Your task to perform on an android device: empty trash in the gmail app Image 0: 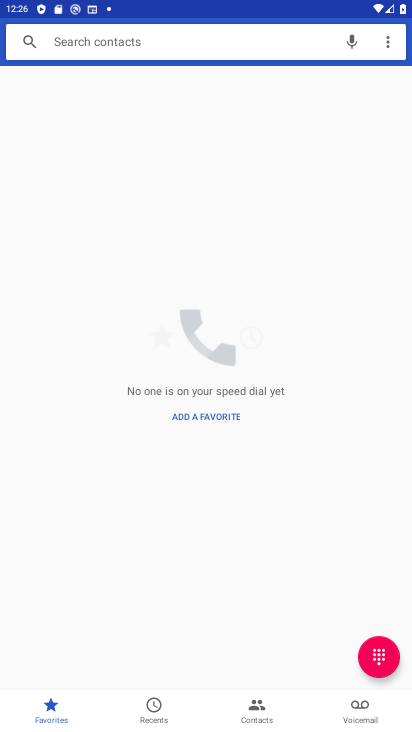
Step 0: press home button
Your task to perform on an android device: empty trash in the gmail app Image 1: 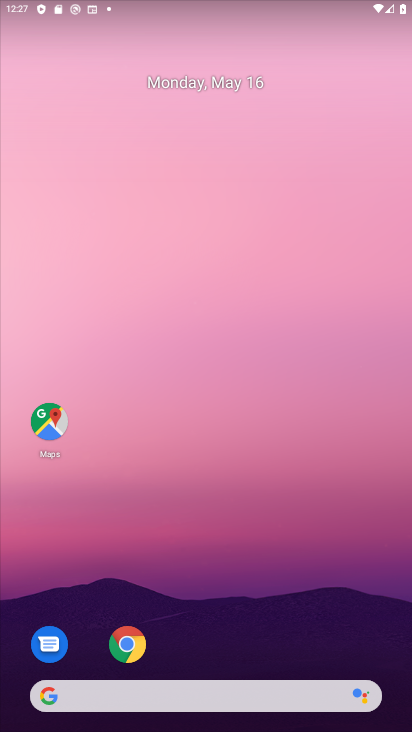
Step 1: drag from (232, 701) to (166, 132)
Your task to perform on an android device: empty trash in the gmail app Image 2: 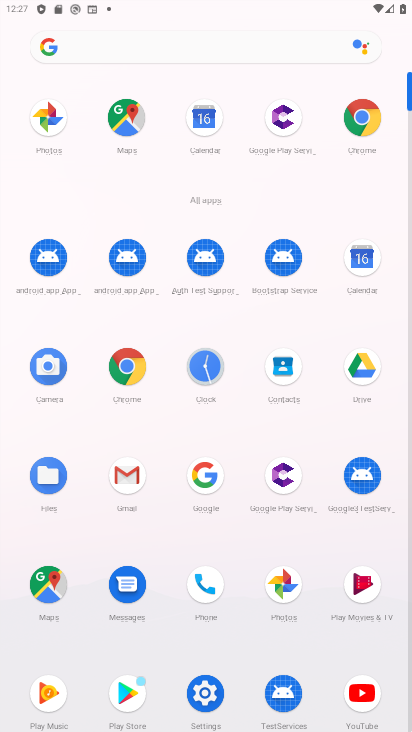
Step 2: click (129, 492)
Your task to perform on an android device: empty trash in the gmail app Image 3: 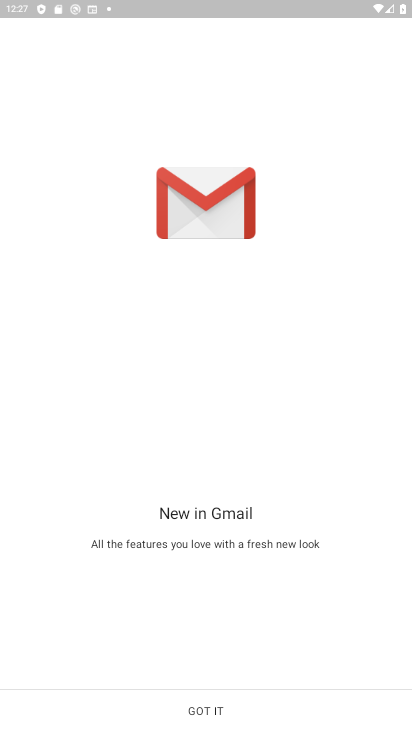
Step 3: click (215, 699)
Your task to perform on an android device: empty trash in the gmail app Image 4: 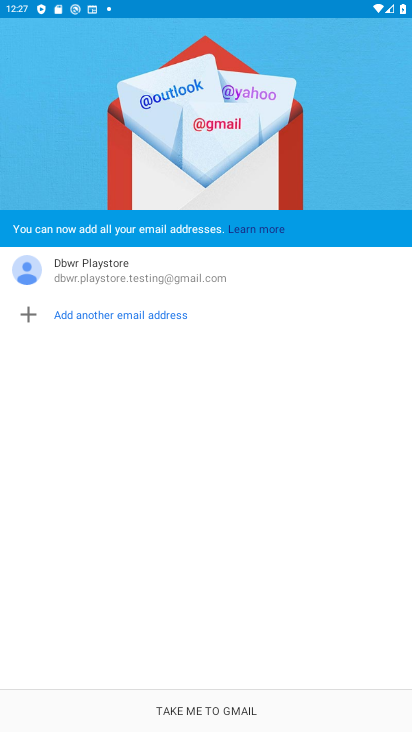
Step 4: click (202, 708)
Your task to perform on an android device: empty trash in the gmail app Image 5: 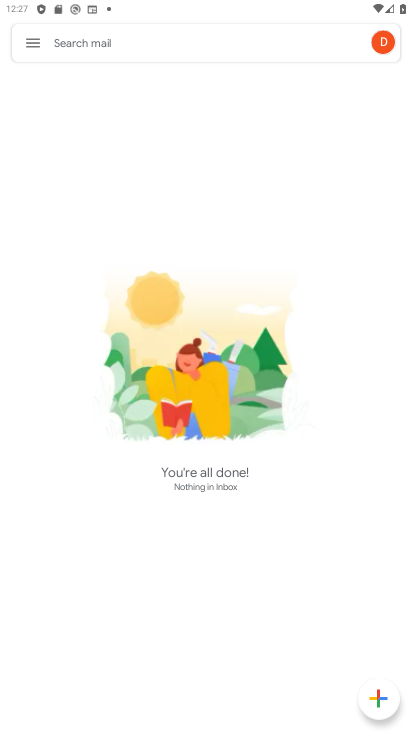
Step 5: click (39, 34)
Your task to perform on an android device: empty trash in the gmail app Image 6: 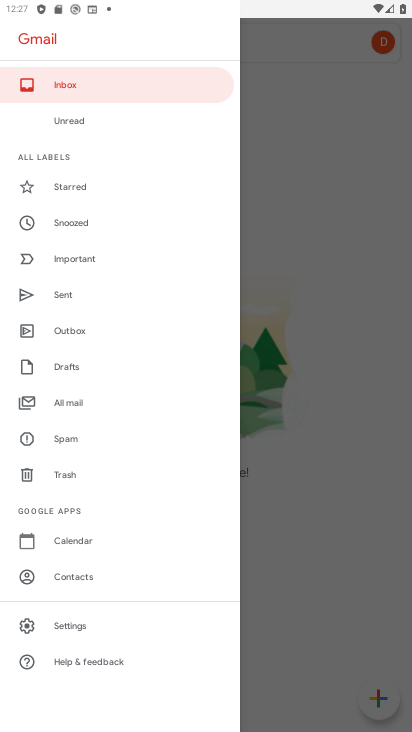
Step 6: click (65, 479)
Your task to perform on an android device: empty trash in the gmail app Image 7: 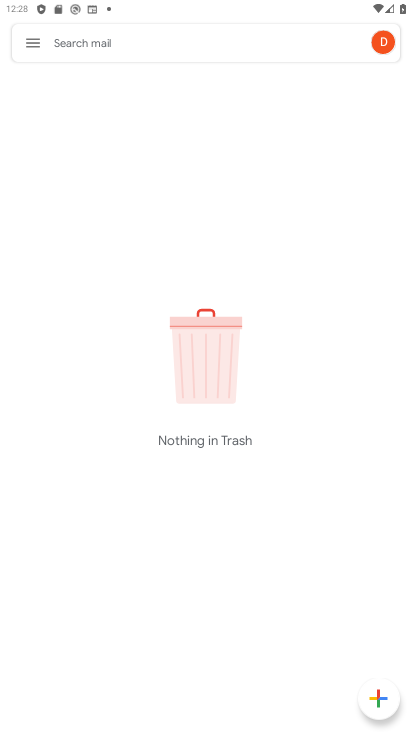
Step 7: task complete